Your task to perform on an android device: Go to wifi settings Image 0: 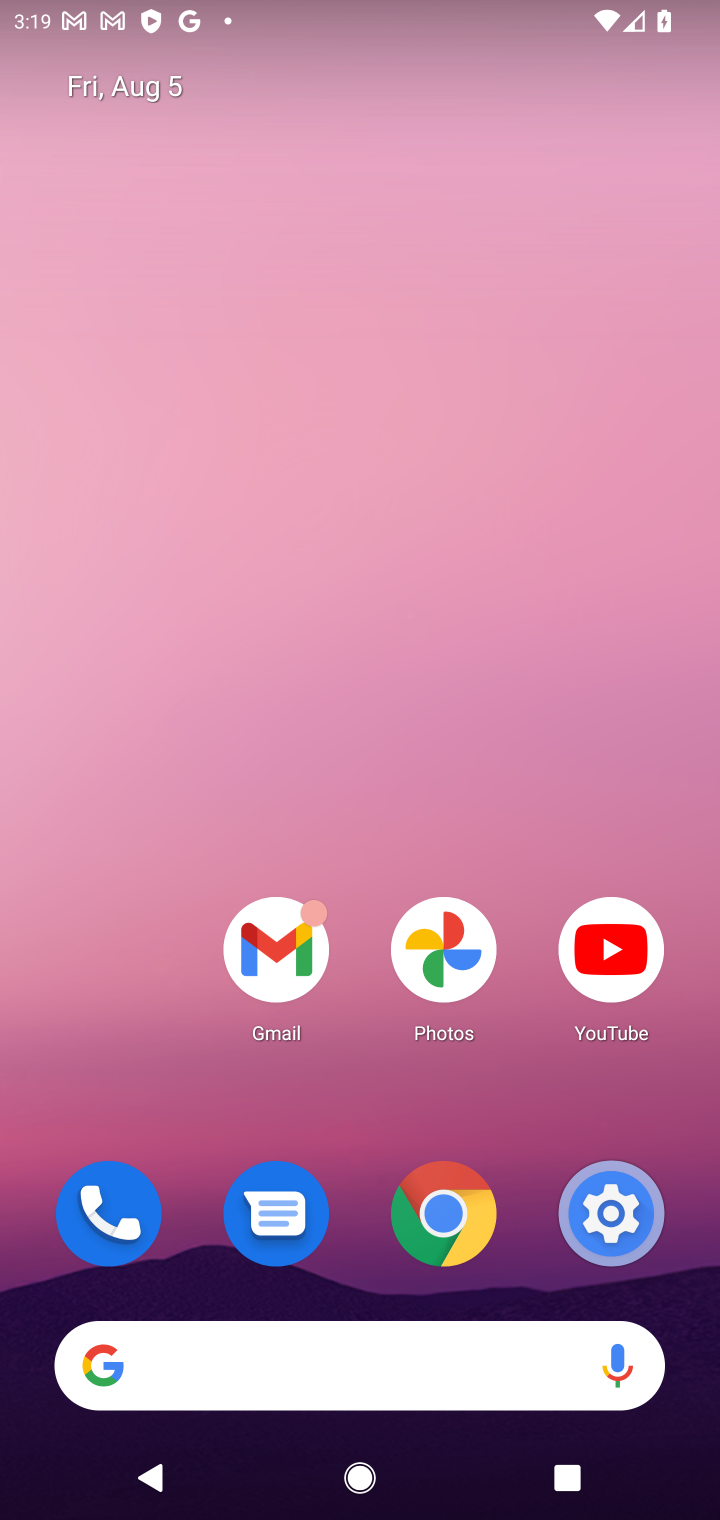
Step 0: click (596, 1224)
Your task to perform on an android device: Go to wifi settings Image 1: 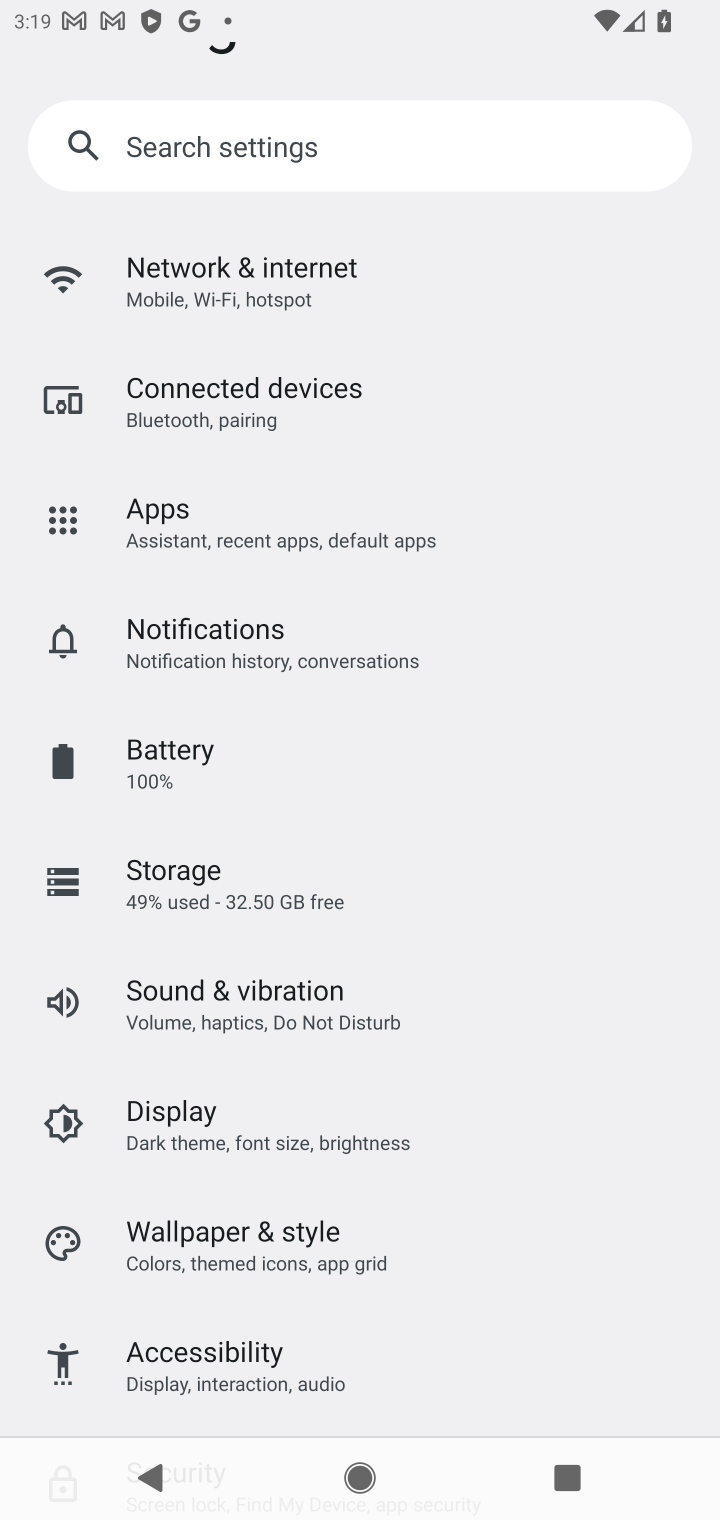
Step 1: click (320, 333)
Your task to perform on an android device: Go to wifi settings Image 2: 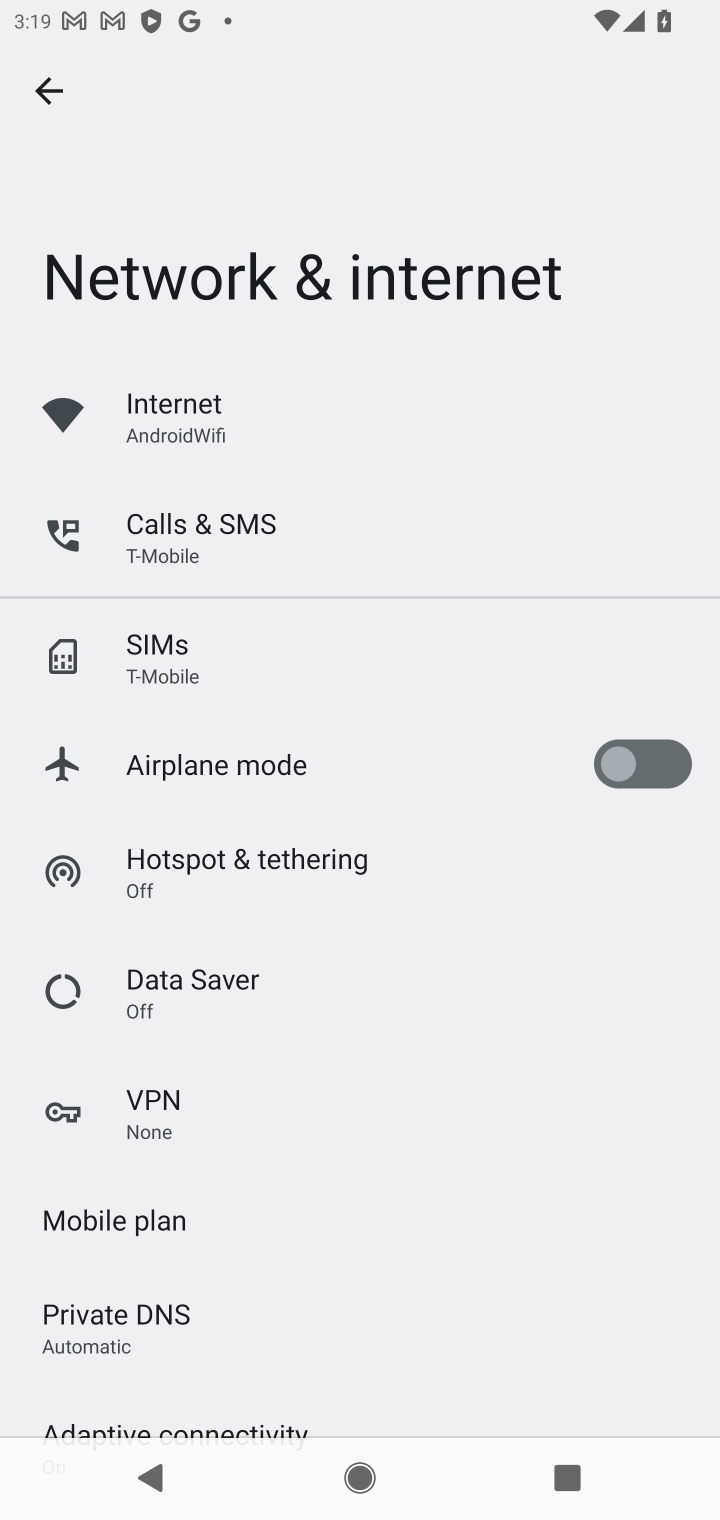
Step 2: task complete